Your task to perform on an android device: toggle notification dots Image 0: 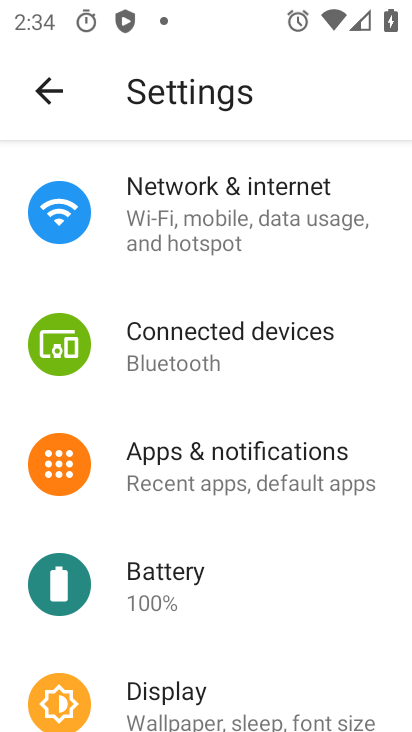
Step 0: click (129, 468)
Your task to perform on an android device: toggle notification dots Image 1: 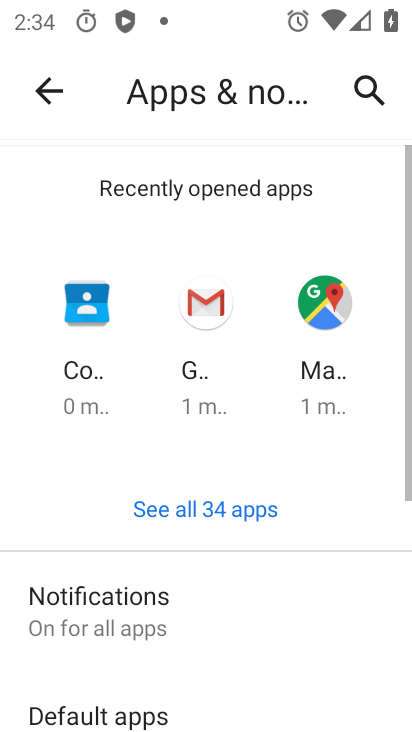
Step 1: drag from (152, 630) to (152, 199)
Your task to perform on an android device: toggle notification dots Image 2: 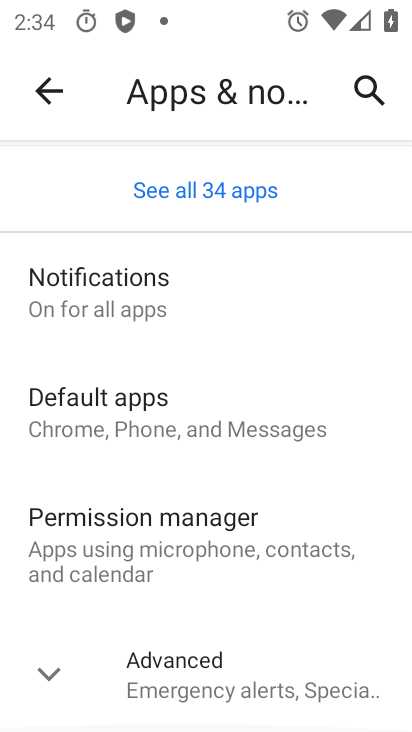
Step 2: click (134, 261)
Your task to perform on an android device: toggle notification dots Image 3: 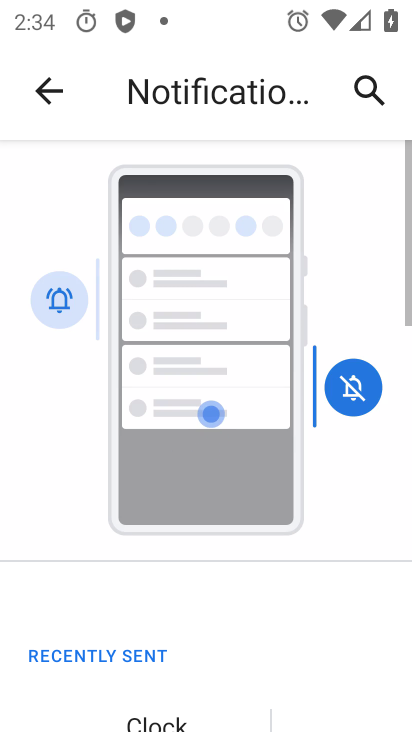
Step 3: drag from (218, 669) to (218, 67)
Your task to perform on an android device: toggle notification dots Image 4: 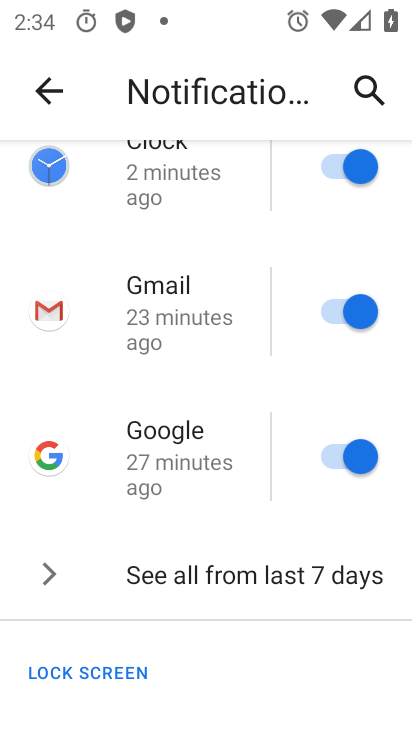
Step 4: drag from (245, 494) to (230, 128)
Your task to perform on an android device: toggle notification dots Image 5: 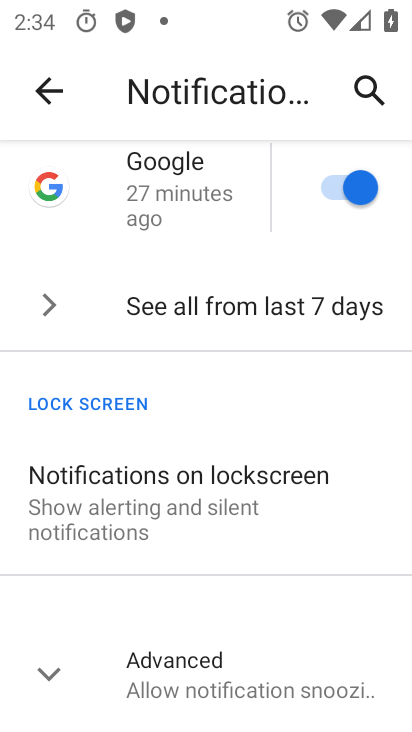
Step 5: click (235, 681)
Your task to perform on an android device: toggle notification dots Image 6: 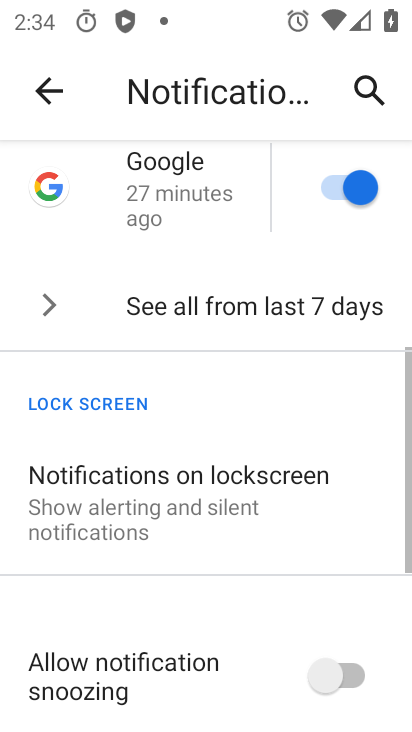
Step 6: drag from (237, 681) to (229, 289)
Your task to perform on an android device: toggle notification dots Image 7: 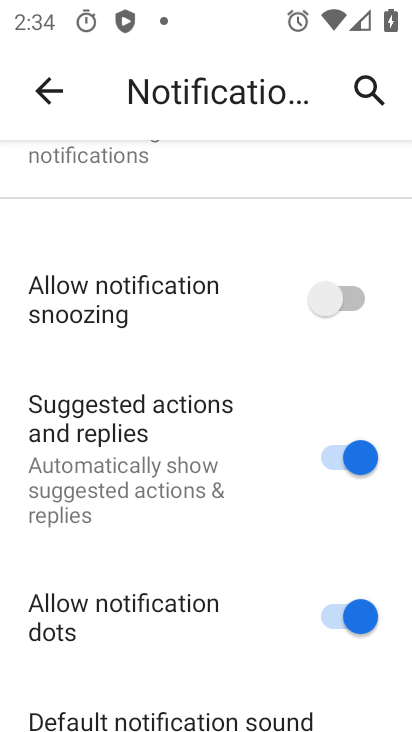
Step 7: click (359, 612)
Your task to perform on an android device: toggle notification dots Image 8: 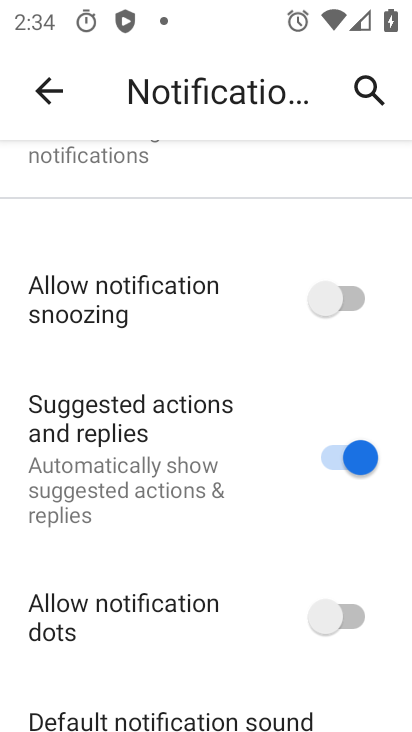
Step 8: task complete